Your task to perform on an android device: Go to Amazon Image 0: 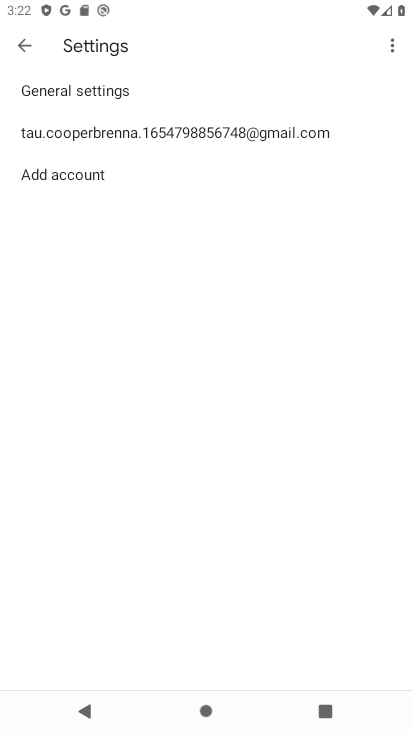
Step 0: press home button
Your task to perform on an android device: Go to Amazon Image 1: 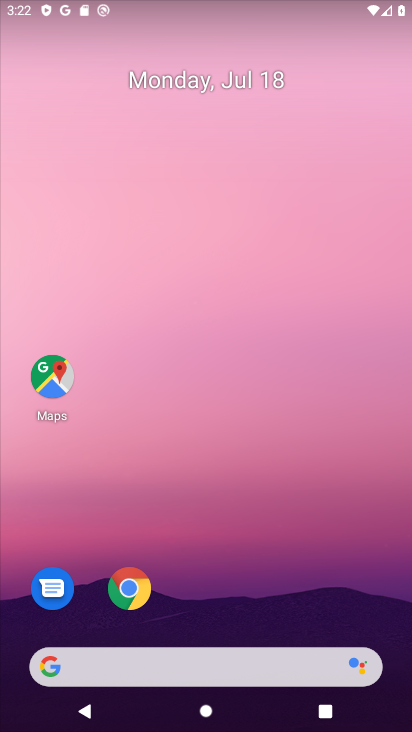
Step 1: click (133, 583)
Your task to perform on an android device: Go to Amazon Image 2: 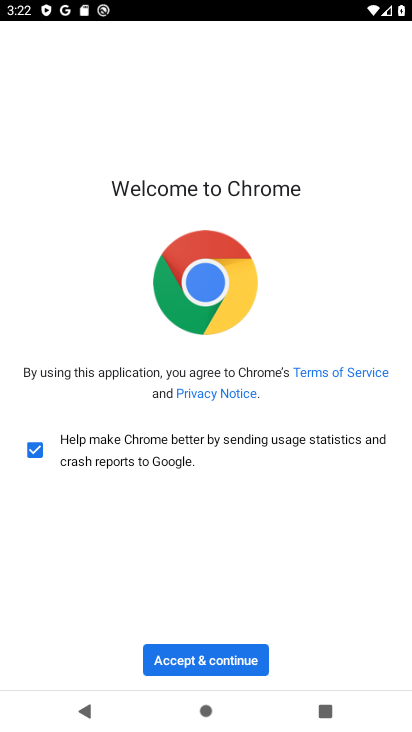
Step 2: click (204, 655)
Your task to perform on an android device: Go to Amazon Image 3: 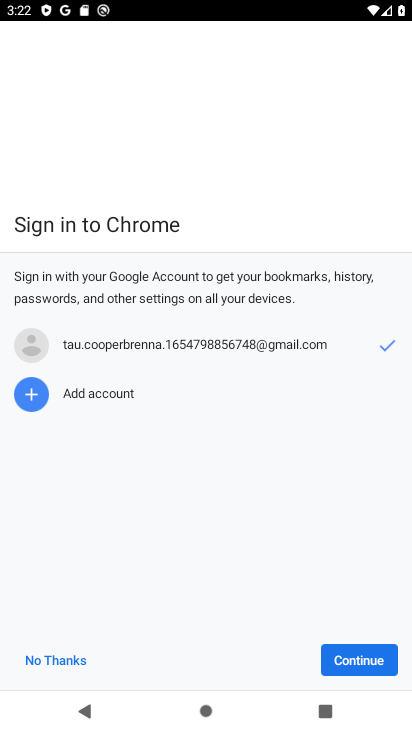
Step 3: click (357, 650)
Your task to perform on an android device: Go to Amazon Image 4: 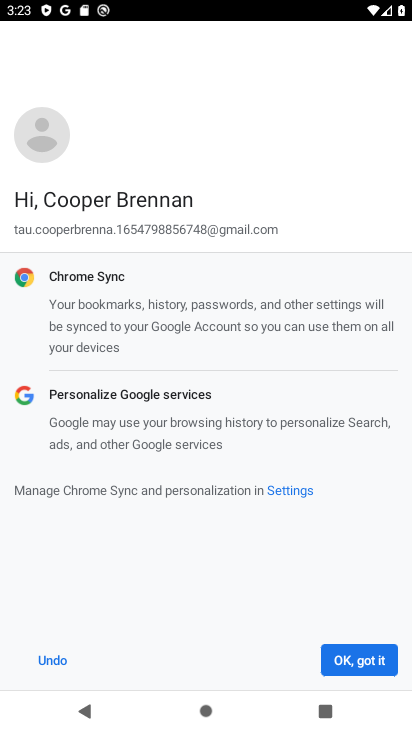
Step 4: click (358, 654)
Your task to perform on an android device: Go to Amazon Image 5: 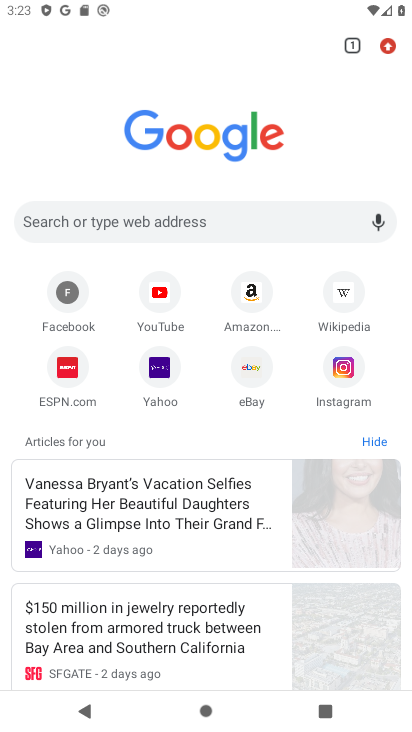
Step 5: click (248, 280)
Your task to perform on an android device: Go to Amazon Image 6: 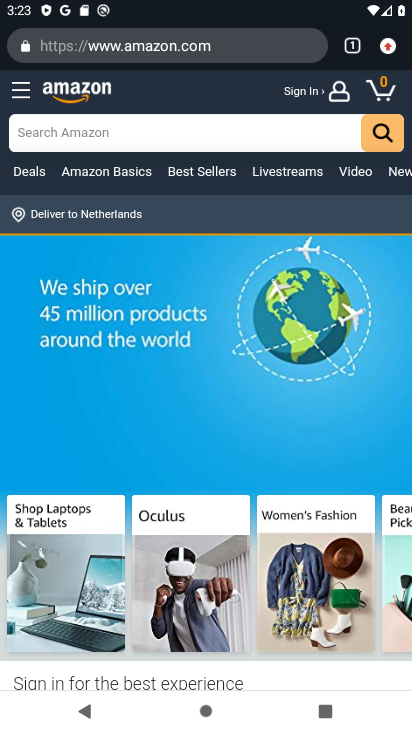
Step 6: task complete